Your task to perform on an android device: Find coffee shops on Maps Image 0: 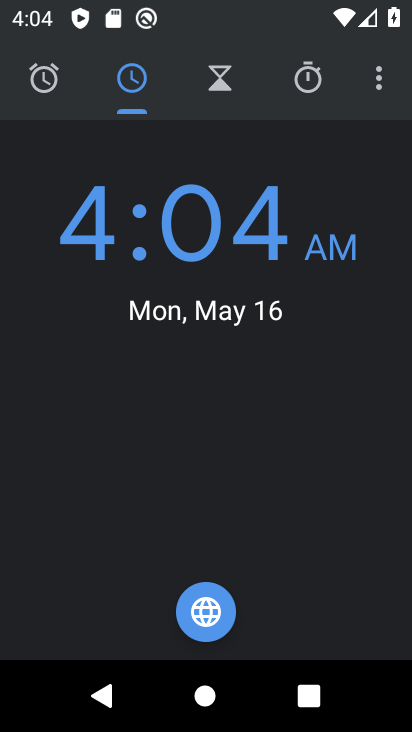
Step 0: press home button
Your task to perform on an android device: Find coffee shops on Maps Image 1: 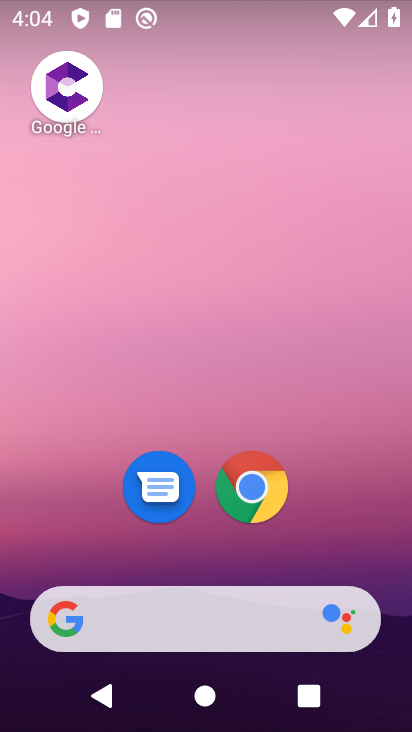
Step 1: drag from (322, 496) to (306, 14)
Your task to perform on an android device: Find coffee shops on Maps Image 2: 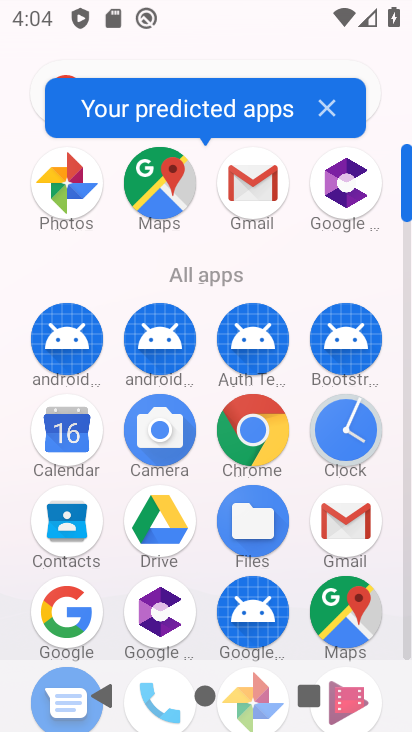
Step 2: click (160, 189)
Your task to perform on an android device: Find coffee shops on Maps Image 3: 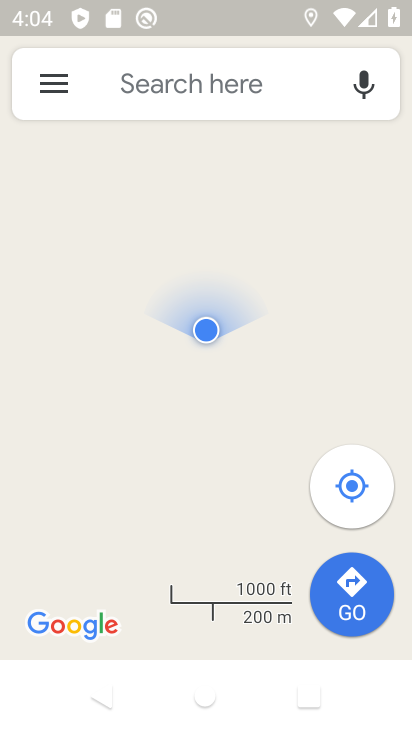
Step 3: click (140, 88)
Your task to perform on an android device: Find coffee shops on Maps Image 4: 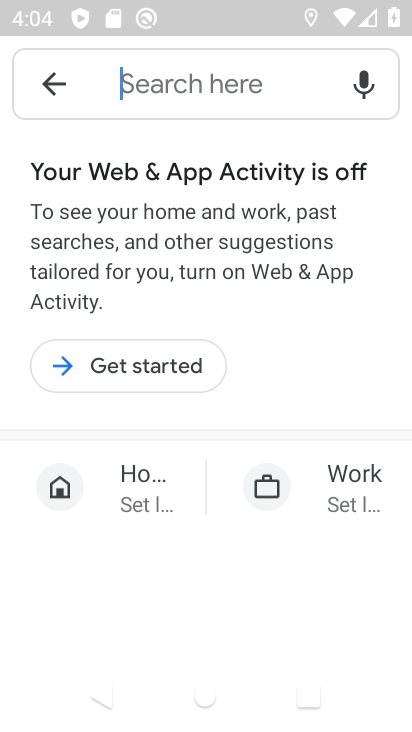
Step 4: click (147, 89)
Your task to perform on an android device: Find coffee shops on Maps Image 5: 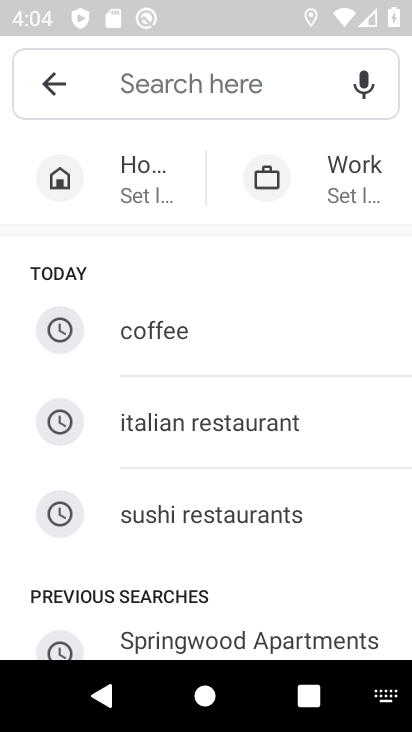
Step 5: type "coffee shop"
Your task to perform on an android device: Find coffee shops on Maps Image 6: 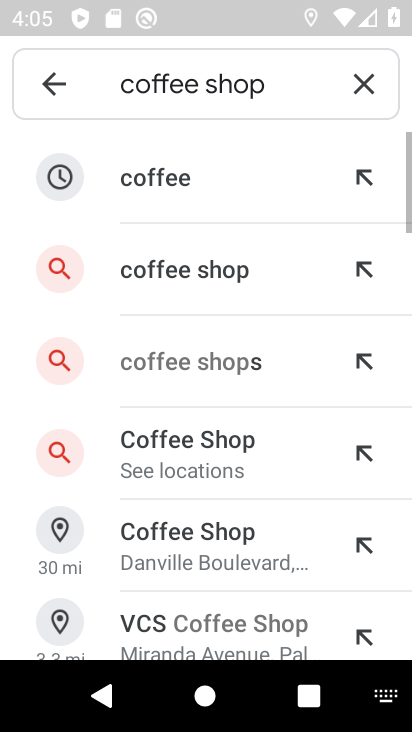
Step 6: click (208, 262)
Your task to perform on an android device: Find coffee shops on Maps Image 7: 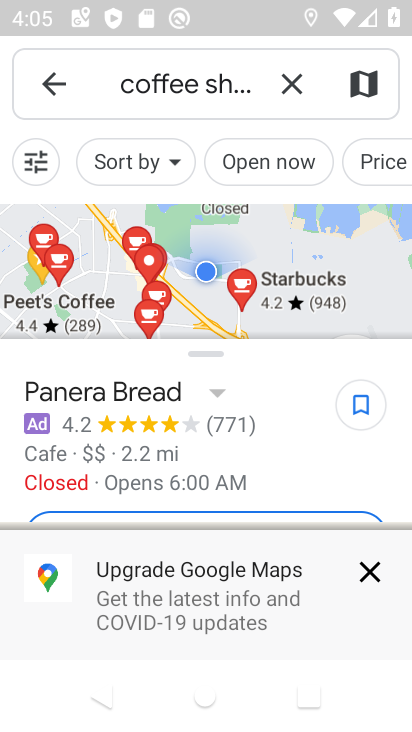
Step 7: task complete